Your task to perform on an android device: Open the map Image 0: 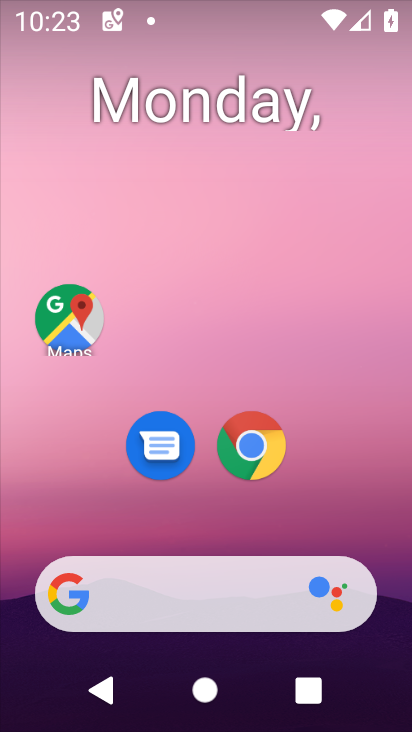
Step 0: click (76, 324)
Your task to perform on an android device: Open the map Image 1: 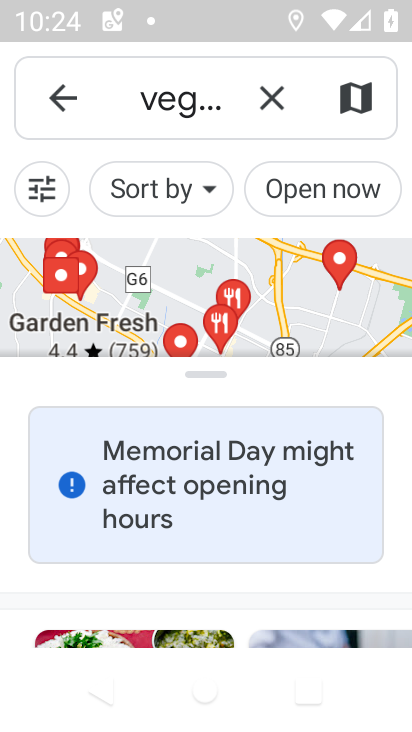
Step 1: task complete